Your task to perform on an android device: change the clock display to analog Image 0: 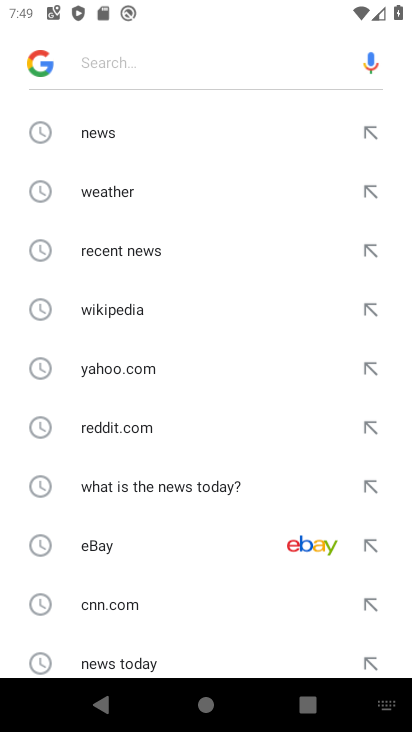
Step 0: press home button
Your task to perform on an android device: change the clock display to analog Image 1: 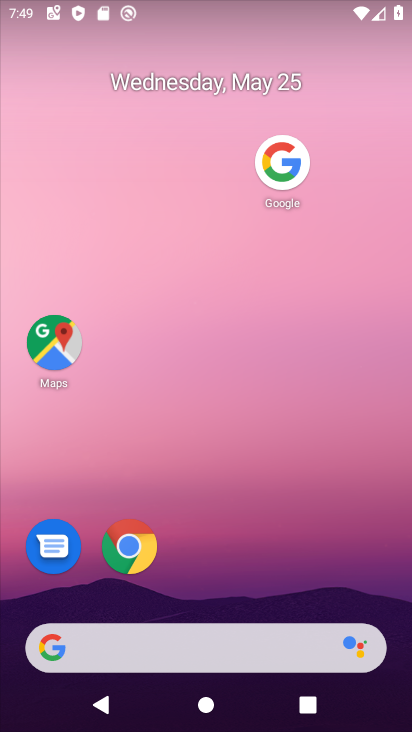
Step 1: drag from (241, 629) to (411, 63)
Your task to perform on an android device: change the clock display to analog Image 2: 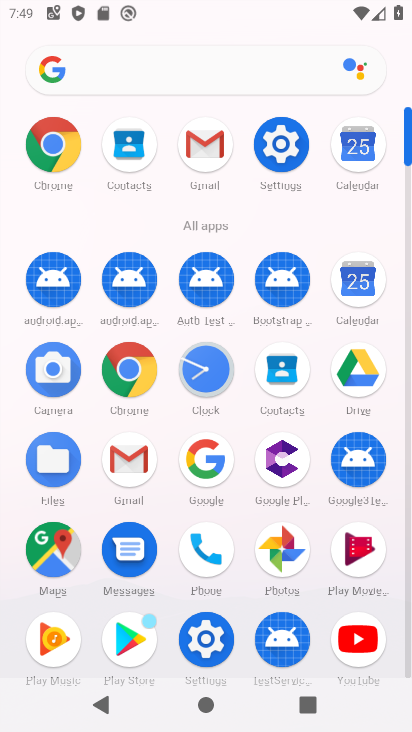
Step 2: click (206, 375)
Your task to perform on an android device: change the clock display to analog Image 3: 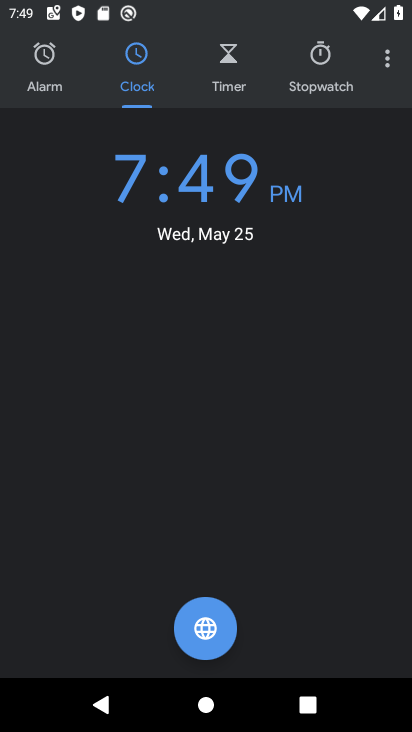
Step 3: click (387, 64)
Your task to perform on an android device: change the clock display to analog Image 4: 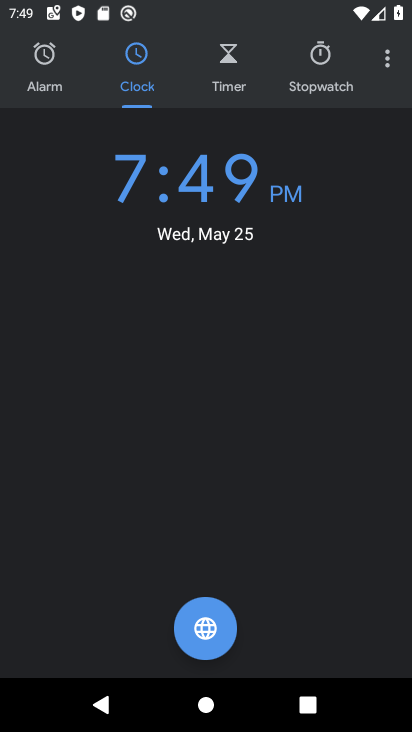
Step 4: click (390, 60)
Your task to perform on an android device: change the clock display to analog Image 5: 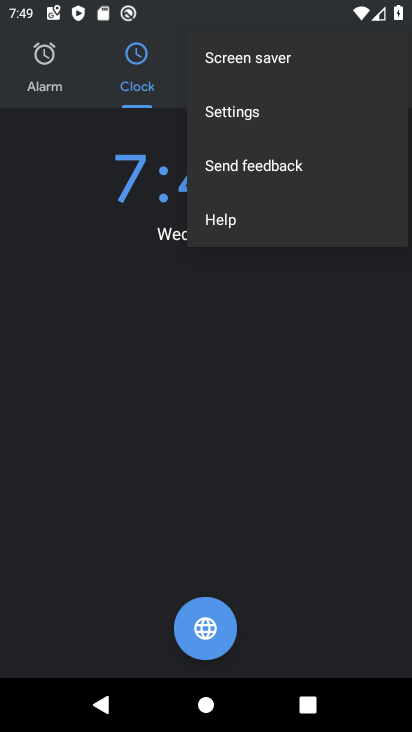
Step 5: click (247, 112)
Your task to perform on an android device: change the clock display to analog Image 6: 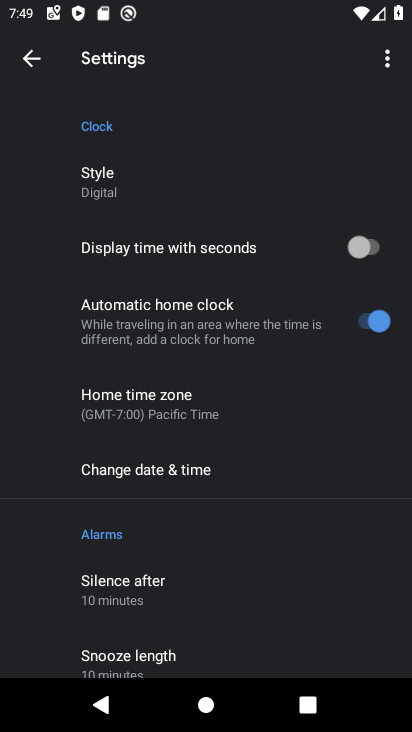
Step 6: click (103, 181)
Your task to perform on an android device: change the clock display to analog Image 7: 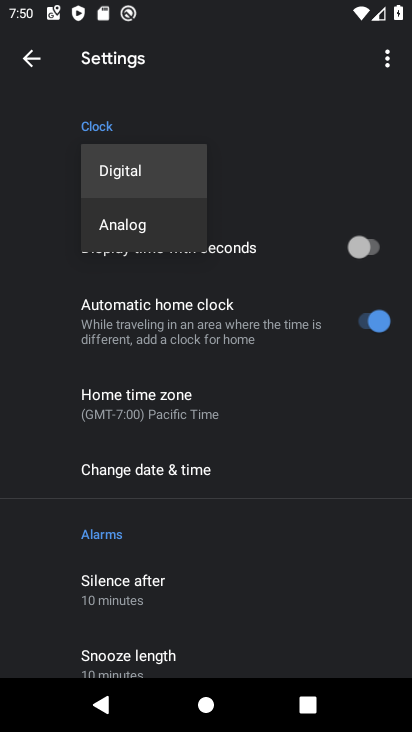
Step 7: click (128, 229)
Your task to perform on an android device: change the clock display to analog Image 8: 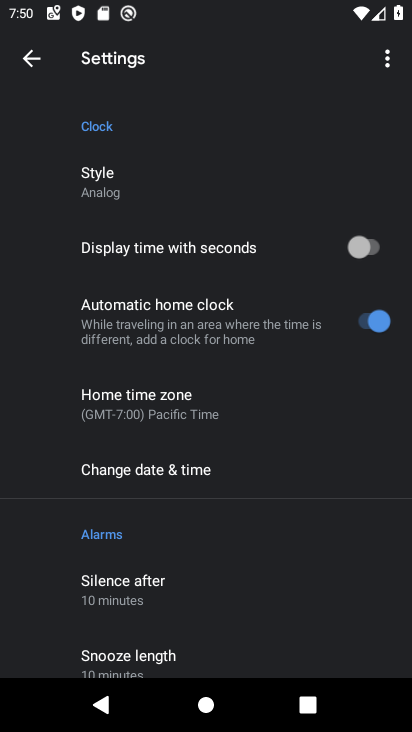
Step 8: task complete